Your task to perform on an android device: Open privacy settings Image 0: 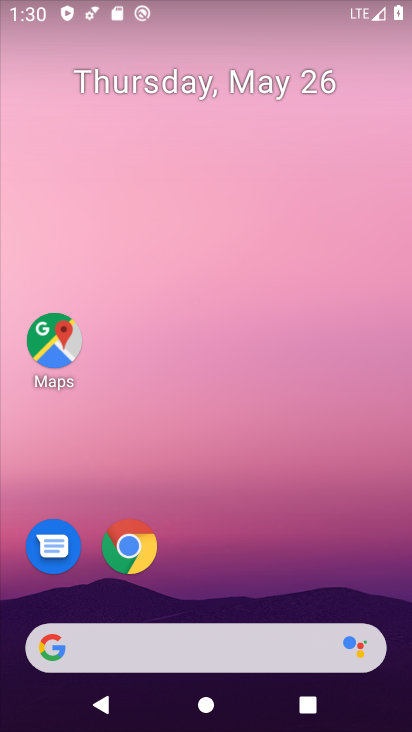
Step 0: drag from (303, 373) to (207, 11)
Your task to perform on an android device: Open privacy settings Image 1: 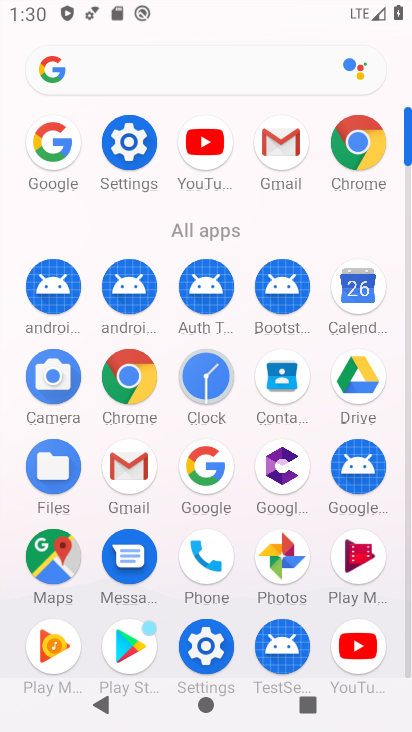
Step 1: click (124, 149)
Your task to perform on an android device: Open privacy settings Image 2: 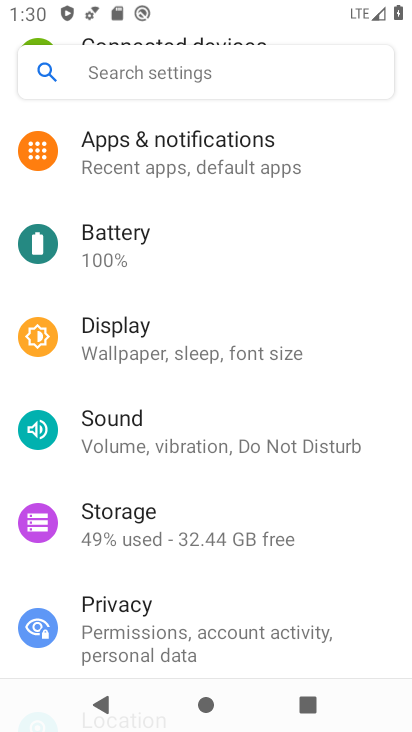
Step 2: click (201, 620)
Your task to perform on an android device: Open privacy settings Image 3: 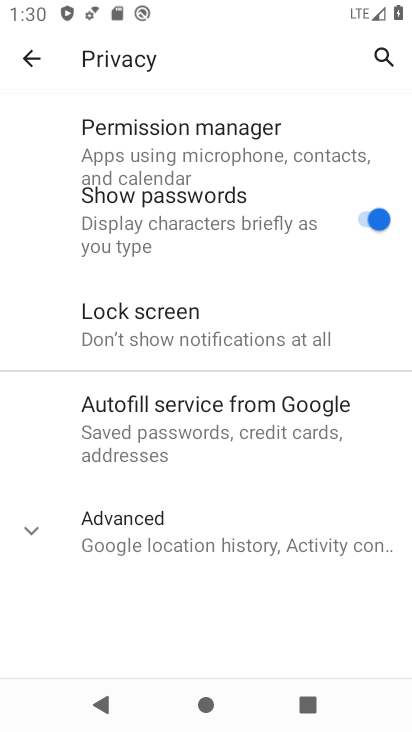
Step 3: task complete